Your task to perform on an android device: choose inbox layout in the gmail app Image 0: 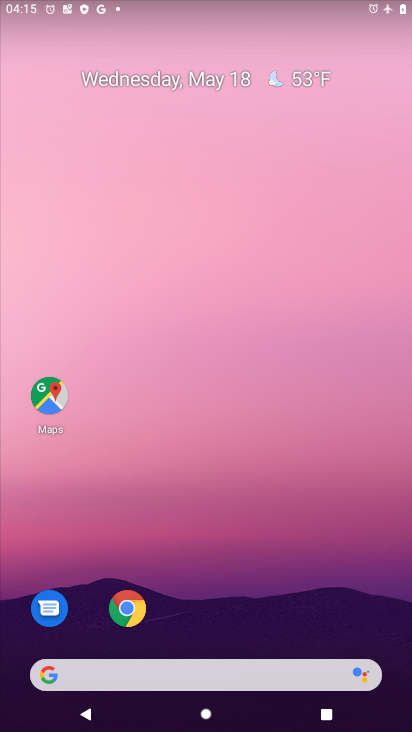
Step 0: drag from (321, 610) to (289, 18)
Your task to perform on an android device: choose inbox layout in the gmail app Image 1: 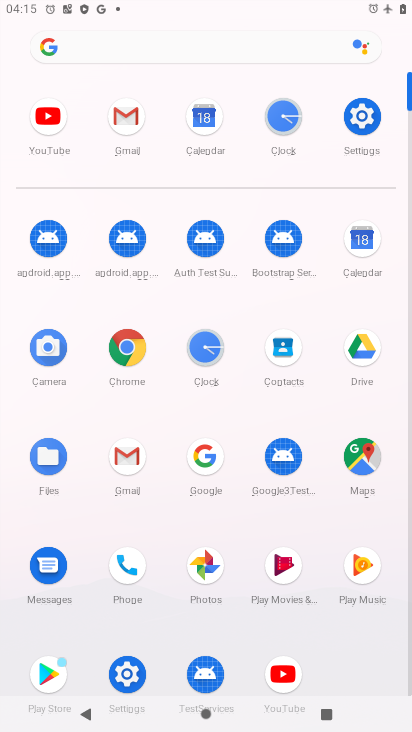
Step 1: click (121, 122)
Your task to perform on an android device: choose inbox layout in the gmail app Image 2: 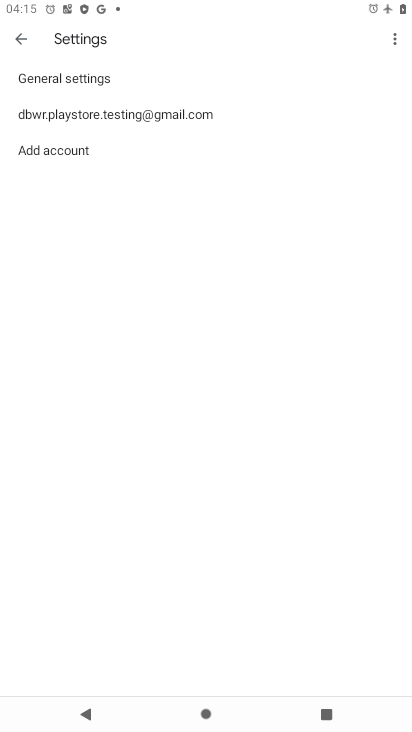
Step 2: click (48, 117)
Your task to perform on an android device: choose inbox layout in the gmail app Image 3: 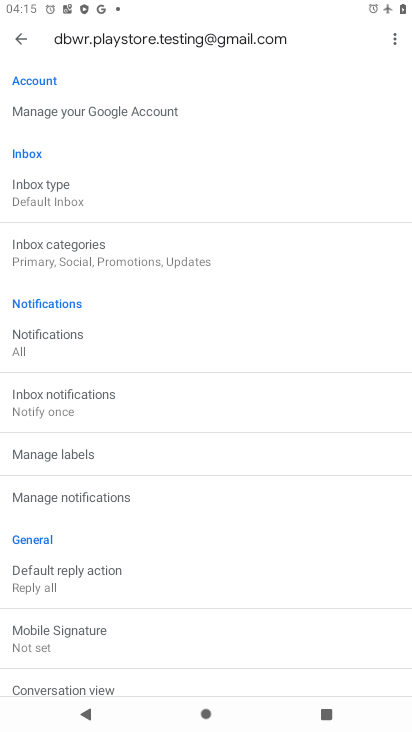
Step 3: click (50, 191)
Your task to perform on an android device: choose inbox layout in the gmail app Image 4: 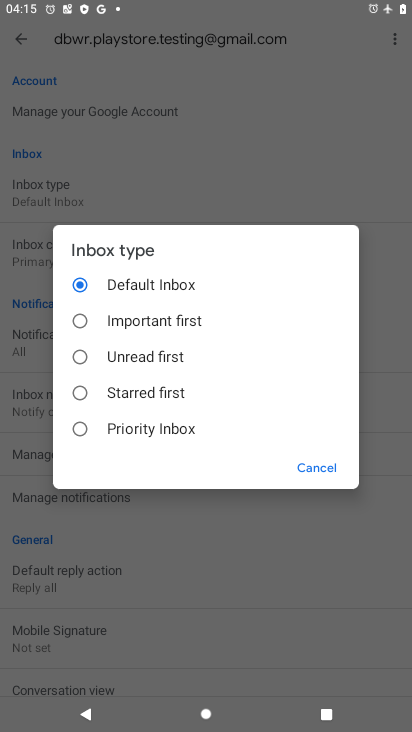
Step 4: click (82, 397)
Your task to perform on an android device: choose inbox layout in the gmail app Image 5: 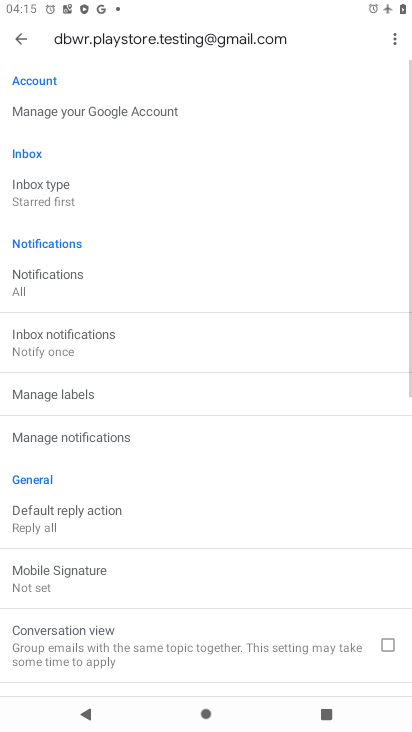
Step 5: task complete